Your task to perform on an android device: check data usage Image 0: 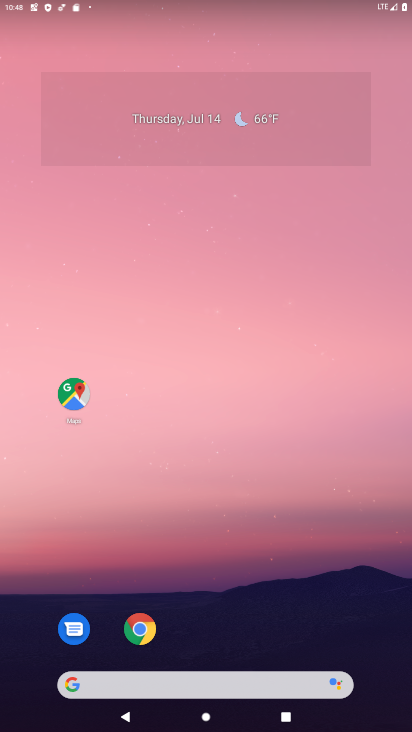
Step 0: press home button
Your task to perform on an android device: check data usage Image 1: 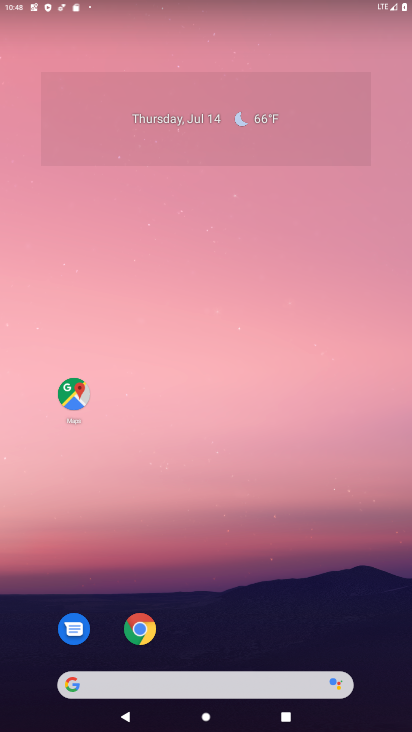
Step 1: drag from (240, 638) to (238, 17)
Your task to perform on an android device: check data usage Image 2: 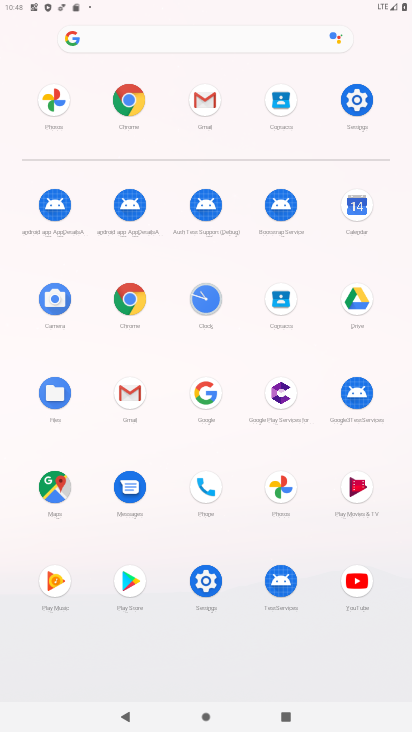
Step 2: click (356, 104)
Your task to perform on an android device: check data usage Image 3: 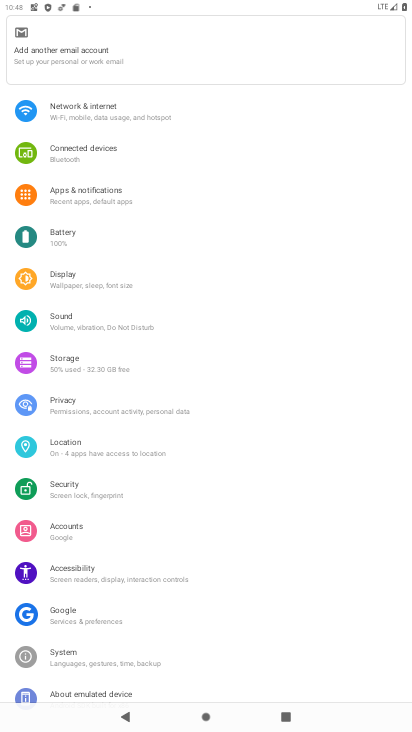
Step 3: click (90, 111)
Your task to perform on an android device: check data usage Image 4: 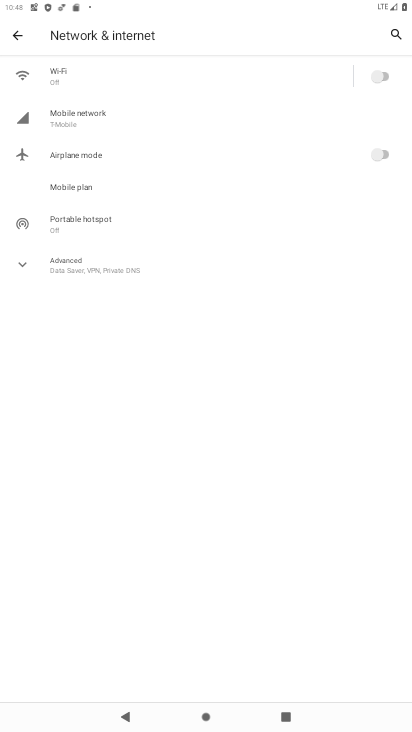
Step 4: click (81, 116)
Your task to perform on an android device: check data usage Image 5: 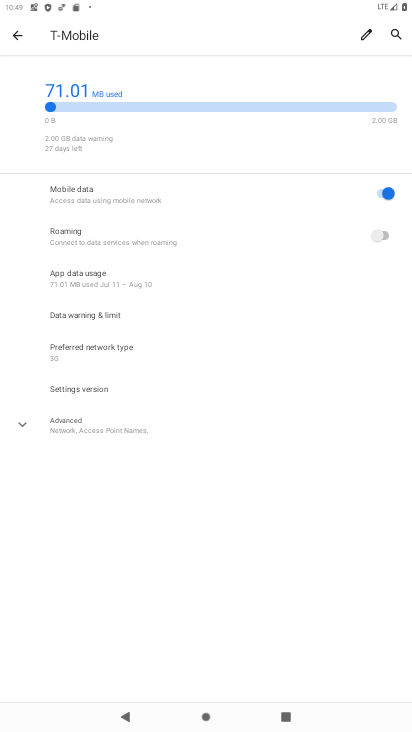
Step 5: task complete